Your task to perform on an android device: What is the news today? Image 0: 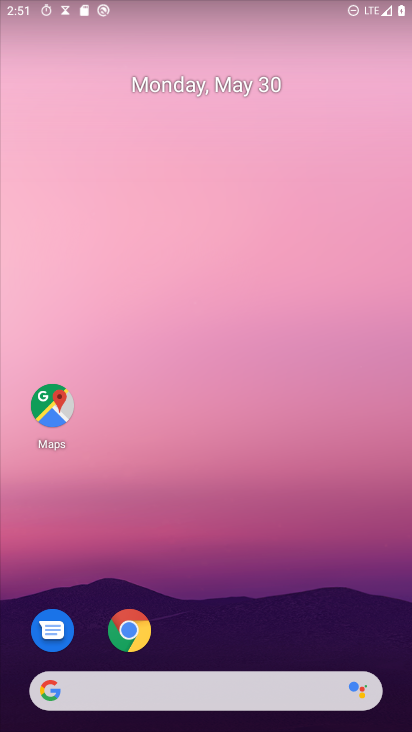
Step 0: drag from (222, 678) to (184, 99)
Your task to perform on an android device: What is the news today? Image 1: 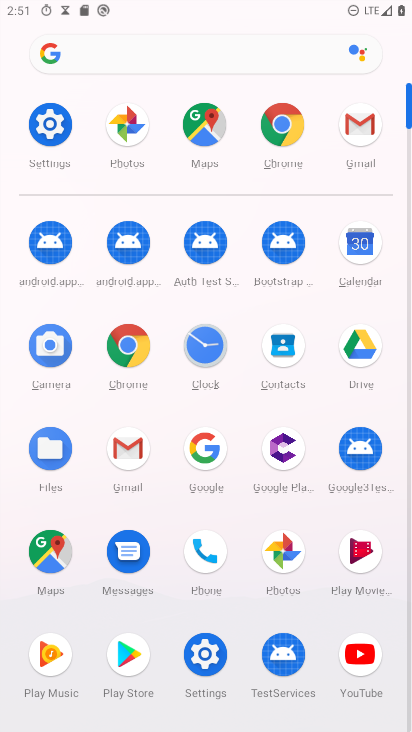
Step 1: click (142, 55)
Your task to perform on an android device: What is the news today? Image 2: 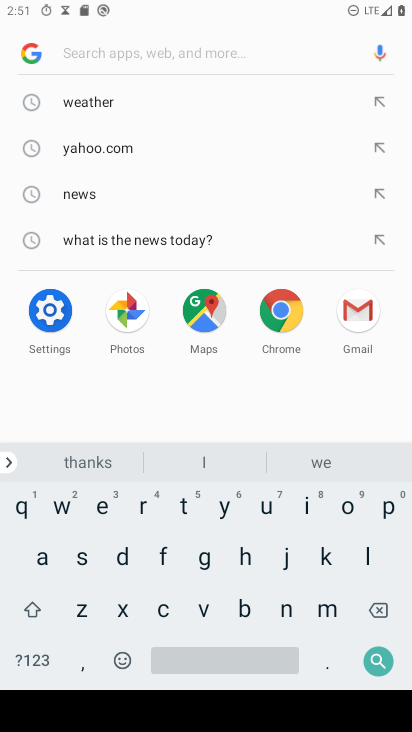
Step 2: click (280, 607)
Your task to perform on an android device: What is the news today? Image 3: 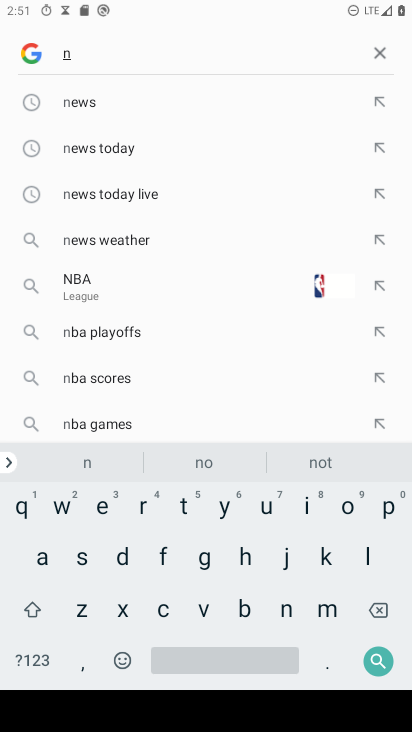
Step 3: click (102, 497)
Your task to perform on an android device: What is the news today? Image 4: 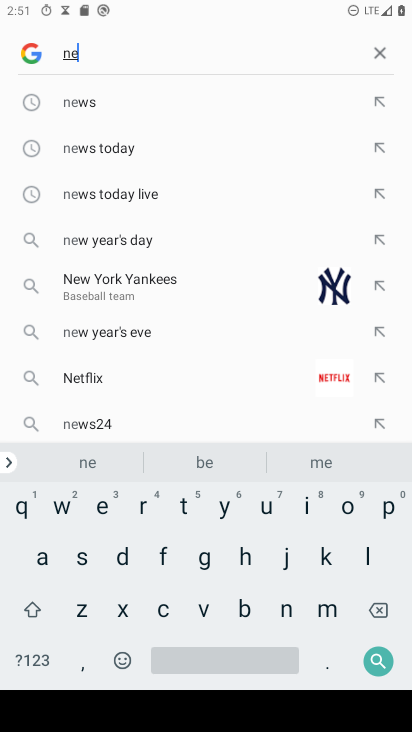
Step 4: click (107, 146)
Your task to perform on an android device: What is the news today? Image 5: 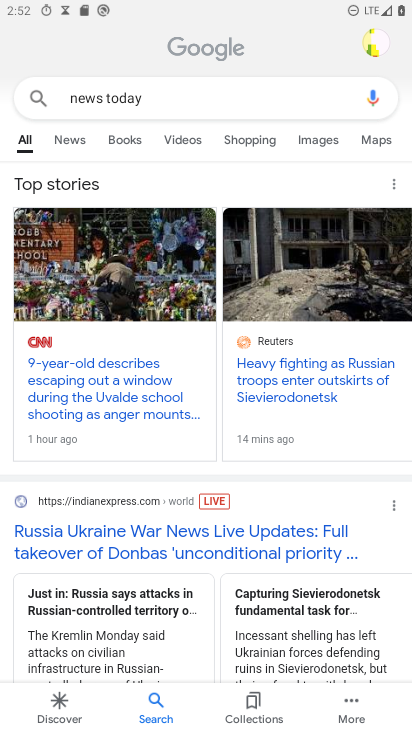
Step 5: task complete